Your task to perform on an android device: allow cookies in the chrome app Image 0: 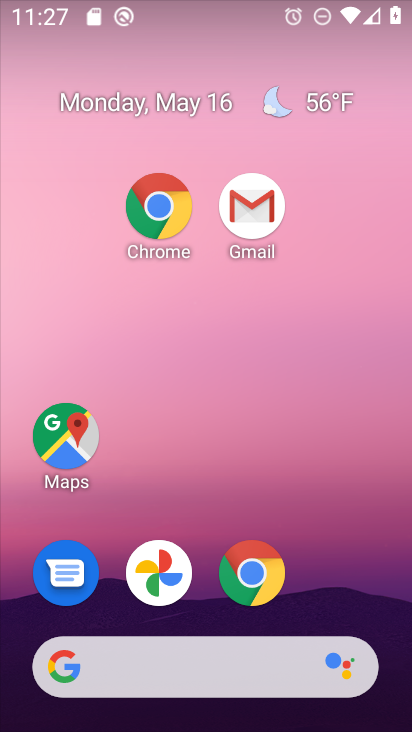
Step 0: drag from (347, 698) to (205, 50)
Your task to perform on an android device: allow cookies in the chrome app Image 1: 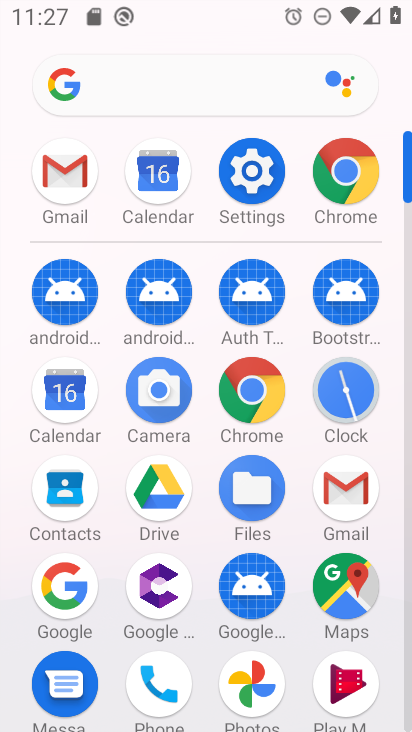
Step 1: drag from (330, 528) to (84, 24)
Your task to perform on an android device: allow cookies in the chrome app Image 2: 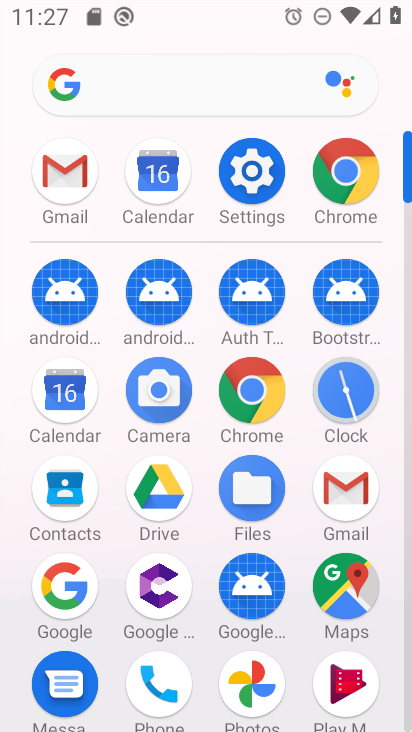
Step 2: click (287, 46)
Your task to perform on an android device: allow cookies in the chrome app Image 3: 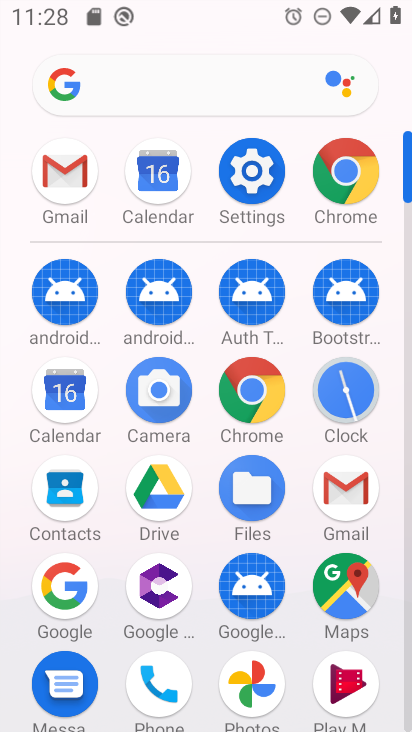
Step 3: click (349, 199)
Your task to perform on an android device: allow cookies in the chrome app Image 4: 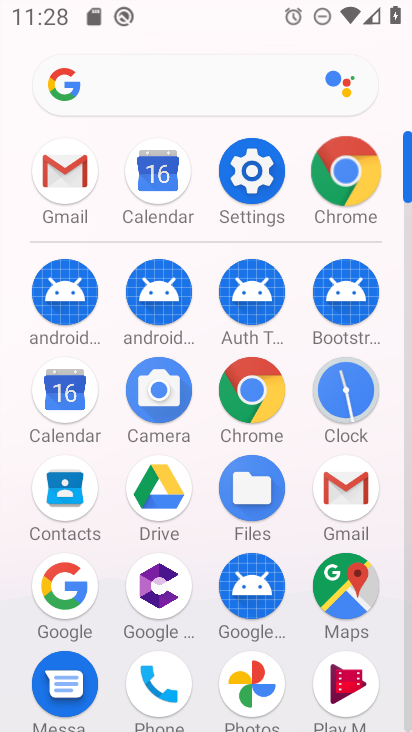
Step 4: click (341, 179)
Your task to perform on an android device: allow cookies in the chrome app Image 5: 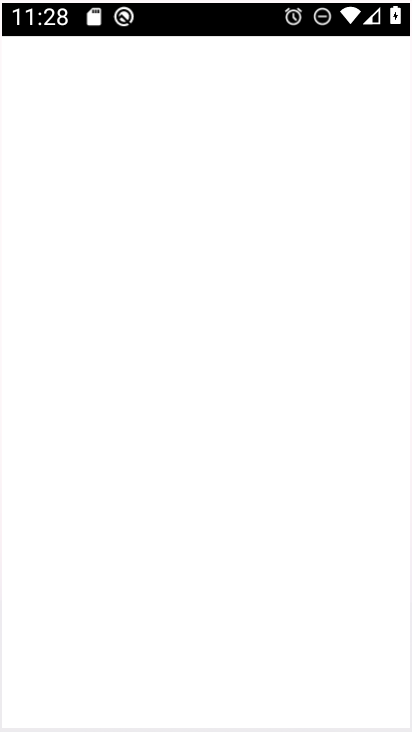
Step 5: click (347, 179)
Your task to perform on an android device: allow cookies in the chrome app Image 6: 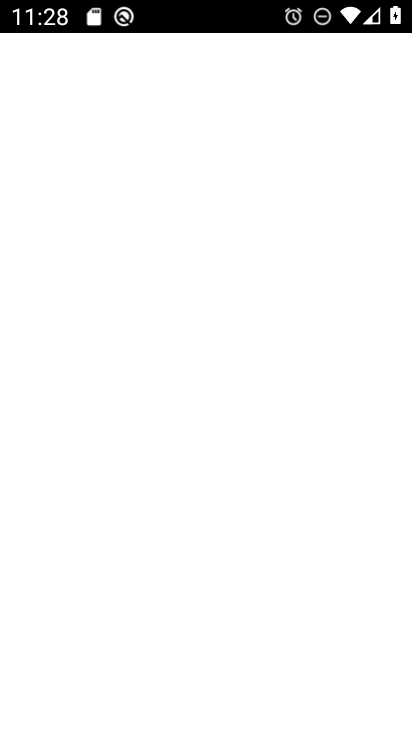
Step 6: click (342, 163)
Your task to perform on an android device: allow cookies in the chrome app Image 7: 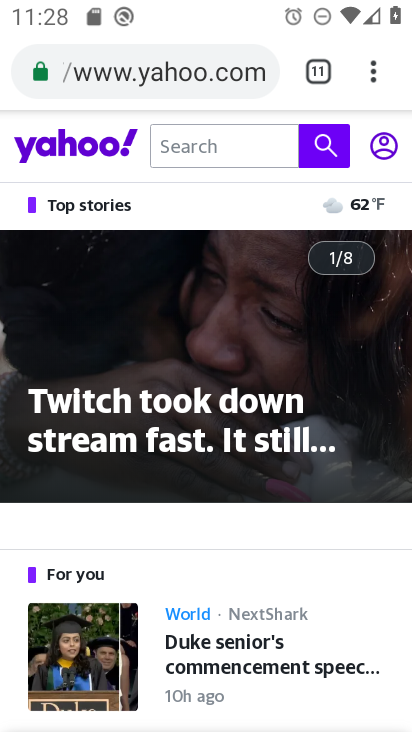
Step 7: drag from (377, 81) to (122, 562)
Your task to perform on an android device: allow cookies in the chrome app Image 8: 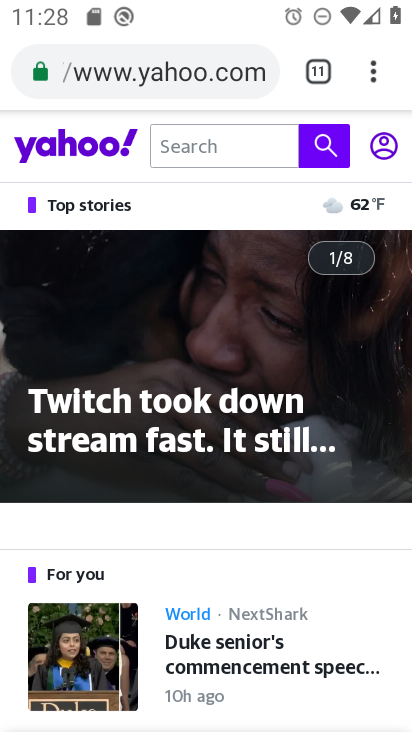
Step 8: click (122, 562)
Your task to perform on an android device: allow cookies in the chrome app Image 9: 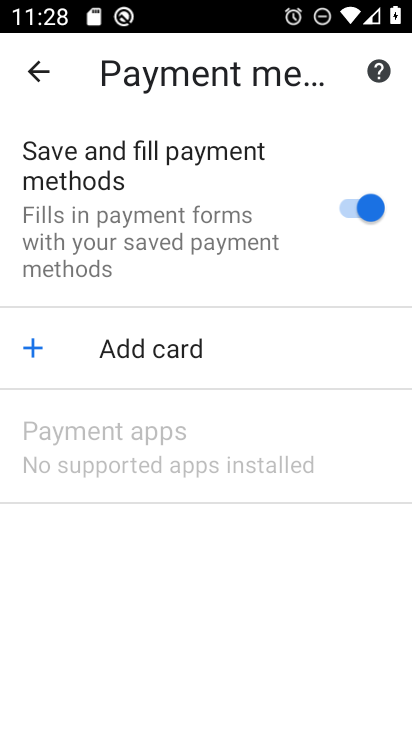
Step 9: click (31, 75)
Your task to perform on an android device: allow cookies in the chrome app Image 10: 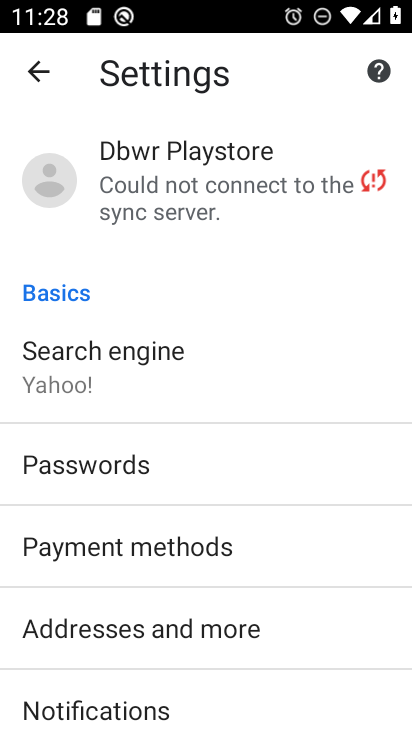
Step 10: click (30, 7)
Your task to perform on an android device: allow cookies in the chrome app Image 11: 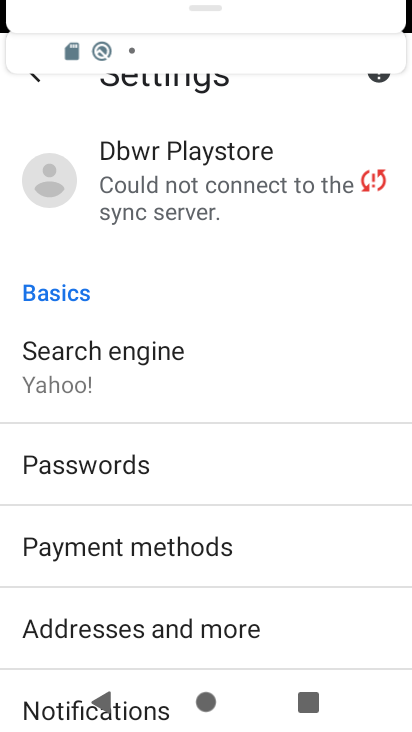
Step 11: drag from (180, 530) to (157, 97)
Your task to perform on an android device: allow cookies in the chrome app Image 12: 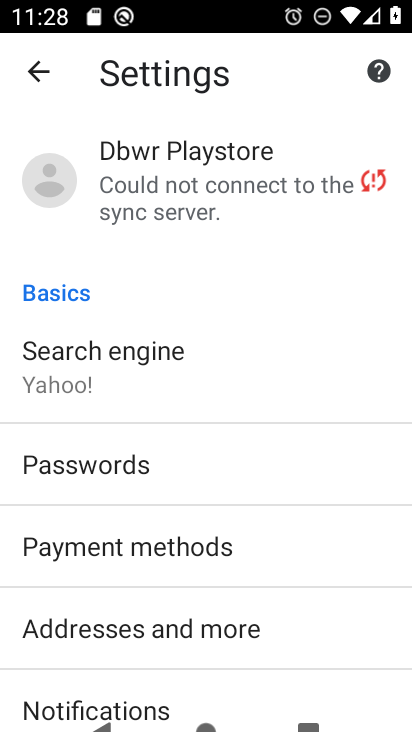
Step 12: drag from (95, 462) to (31, 50)
Your task to perform on an android device: allow cookies in the chrome app Image 13: 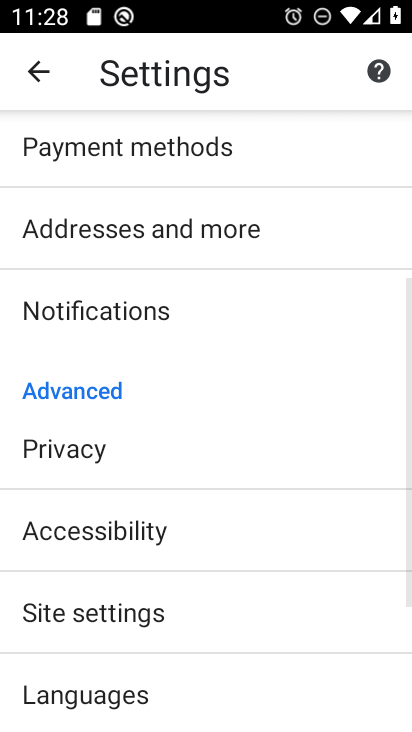
Step 13: drag from (151, 445) to (119, 180)
Your task to perform on an android device: allow cookies in the chrome app Image 14: 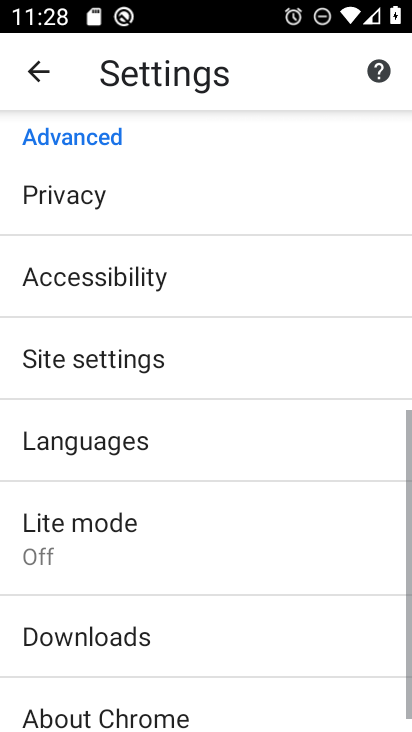
Step 14: drag from (129, 522) to (109, 174)
Your task to perform on an android device: allow cookies in the chrome app Image 15: 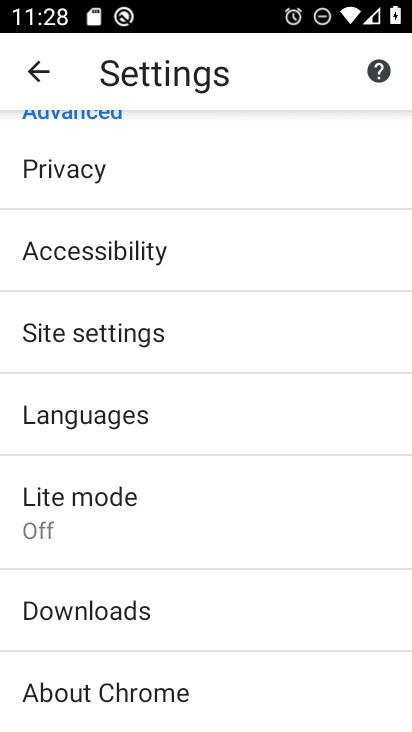
Step 15: click (69, 330)
Your task to perform on an android device: allow cookies in the chrome app Image 16: 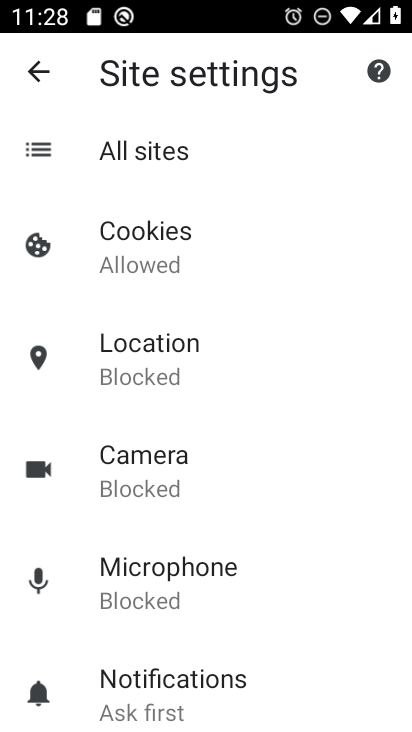
Step 16: click (140, 241)
Your task to perform on an android device: allow cookies in the chrome app Image 17: 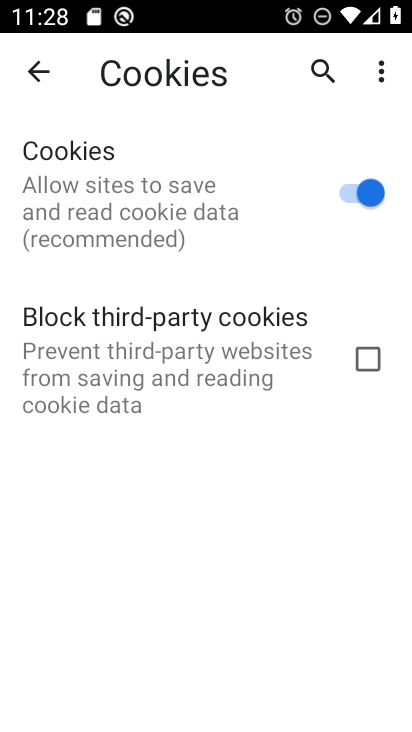
Step 17: task complete